Your task to perform on an android device: Set the phone to "Do not disturb". Image 0: 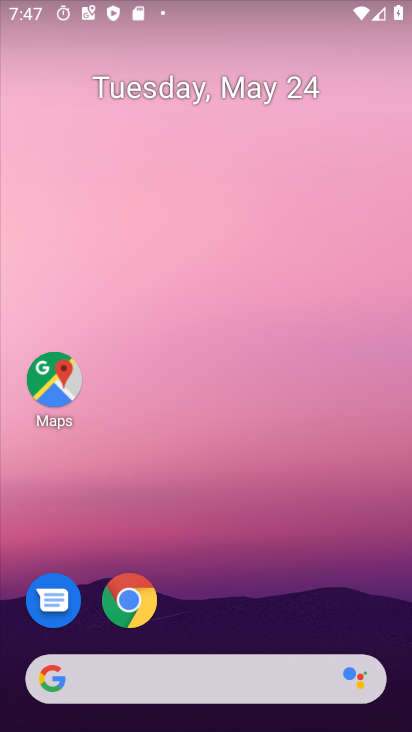
Step 0: drag from (242, 12) to (228, 519)
Your task to perform on an android device: Set the phone to "Do not disturb". Image 1: 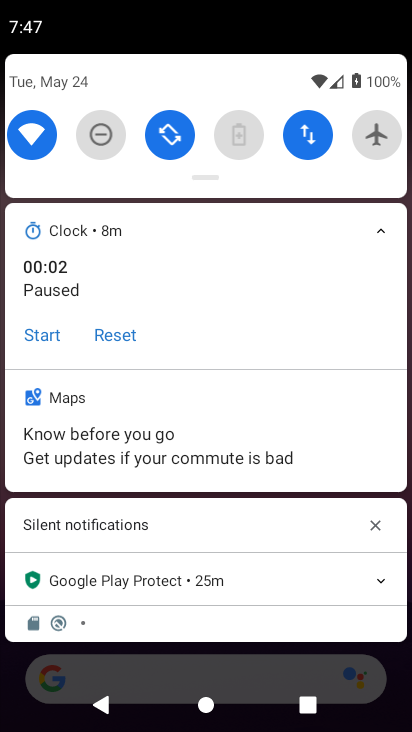
Step 1: click (105, 135)
Your task to perform on an android device: Set the phone to "Do not disturb". Image 2: 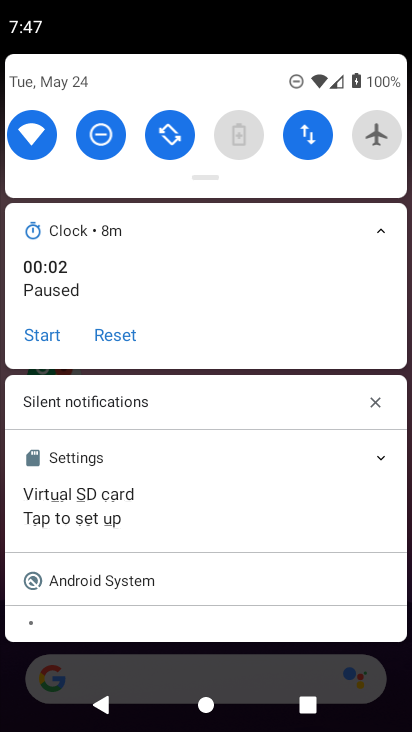
Step 2: task complete